Your task to perform on an android device: empty trash in google photos Image 0: 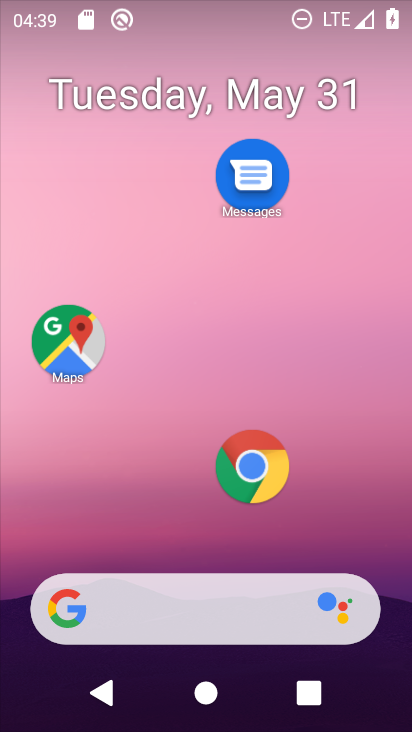
Step 0: drag from (130, 544) to (180, 59)
Your task to perform on an android device: empty trash in google photos Image 1: 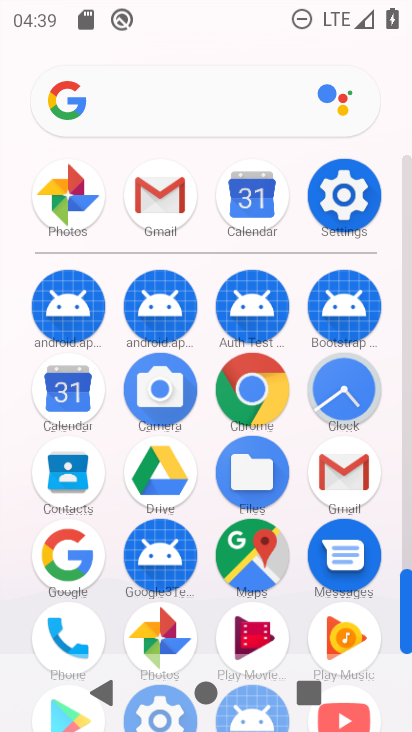
Step 1: click (158, 622)
Your task to perform on an android device: empty trash in google photos Image 2: 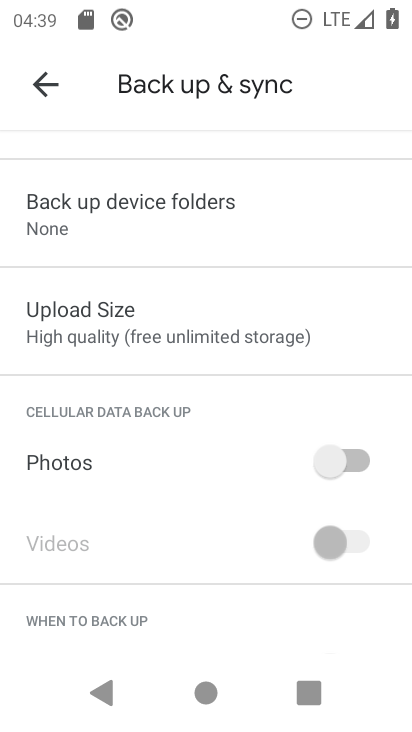
Step 2: click (42, 76)
Your task to perform on an android device: empty trash in google photos Image 3: 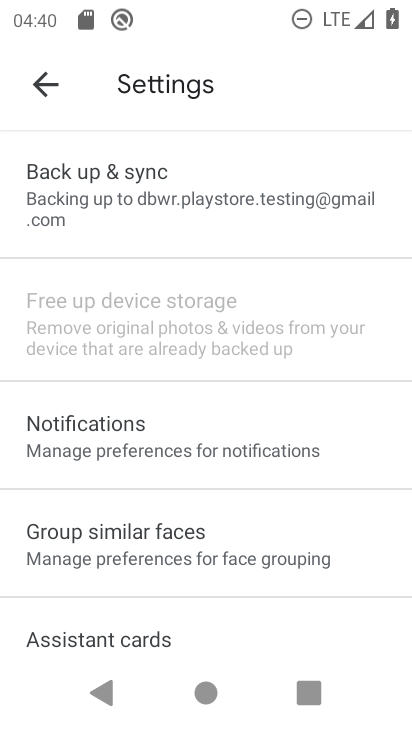
Step 3: click (39, 84)
Your task to perform on an android device: empty trash in google photos Image 4: 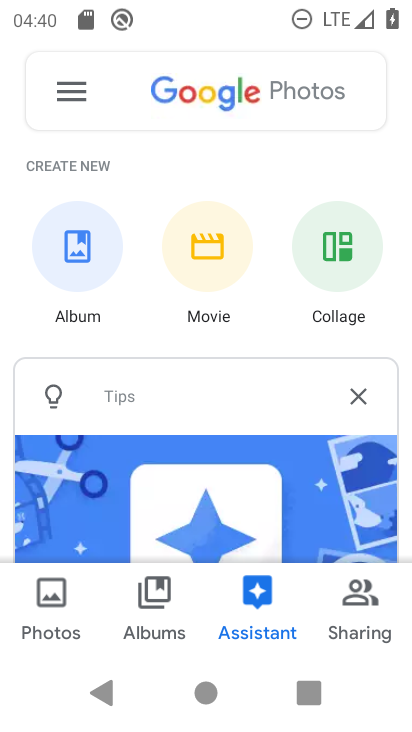
Step 4: click (73, 85)
Your task to perform on an android device: empty trash in google photos Image 5: 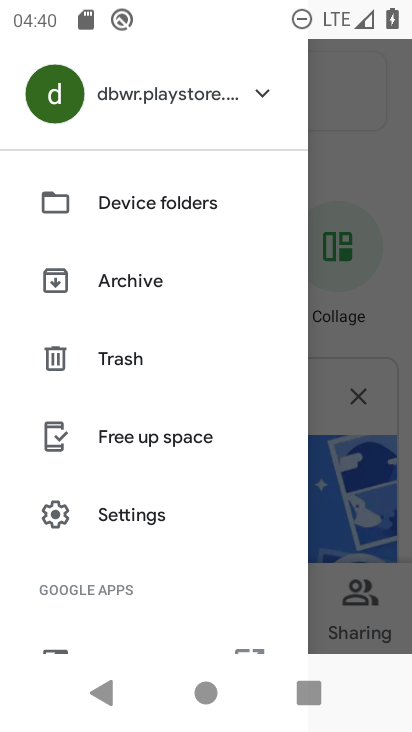
Step 5: click (132, 351)
Your task to perform on an android device: empty trash in google photos Image 6: 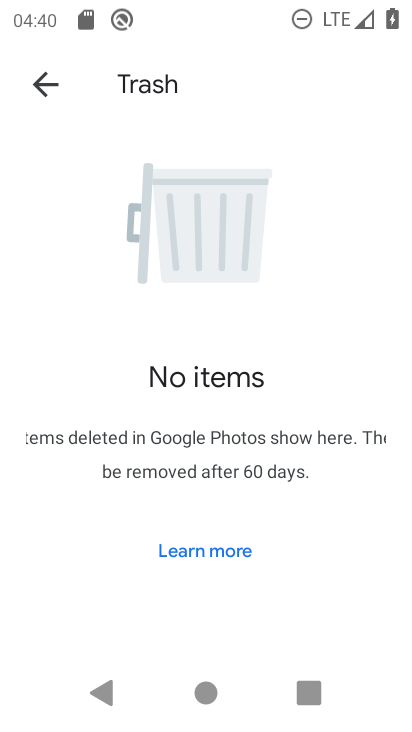
Step 6: task complete